Your task to perform on an android device: toggle data saver in the chrome app Image 0: 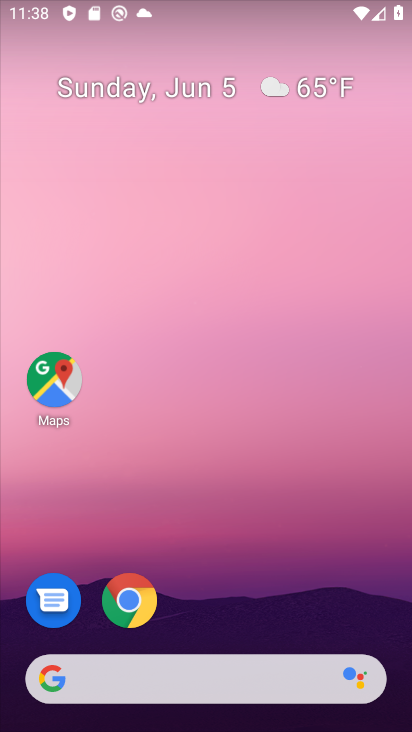
Step 0: click (138, 600)
Your task to perform on an android device: toggle data saver in the chrome app Image 1: 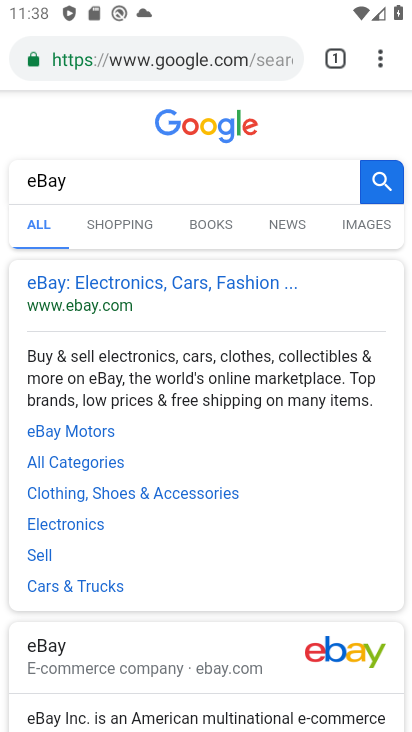
Step 1: click (376, 48)
Your task to perform on an android device: toggle data saver in the chrome app Image 2: 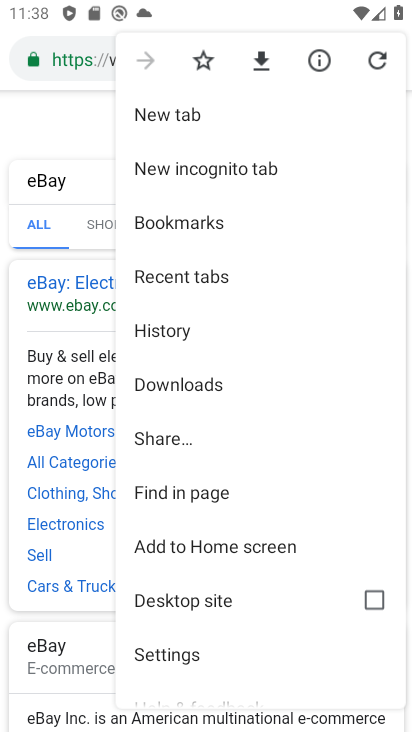
Step 2: click (157, 652)
Your task to perform on an android device: toggle data saver in the chrome app Image 3: 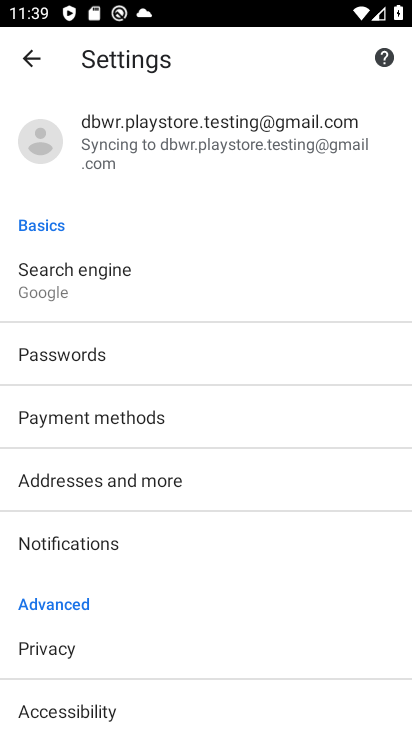
Step 3: drag from (150, 696) to (150, 300)
Your task to perform on an android device: toggle data saver in the chrome app Image 4: 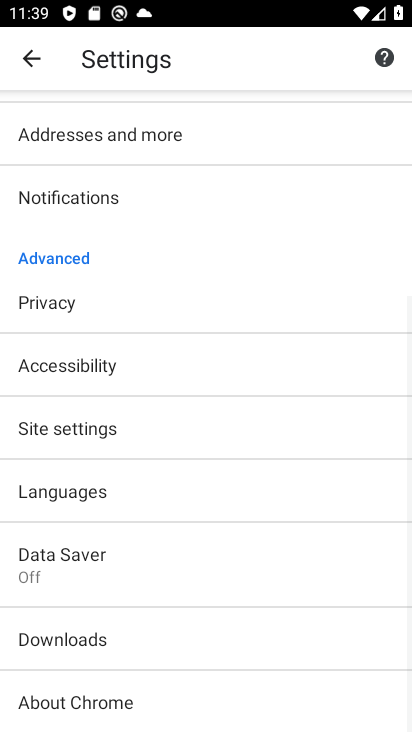
Step 4: click (88, 551)
Your task to perform on an android device: toggle data saver in the chrome app Image 5: 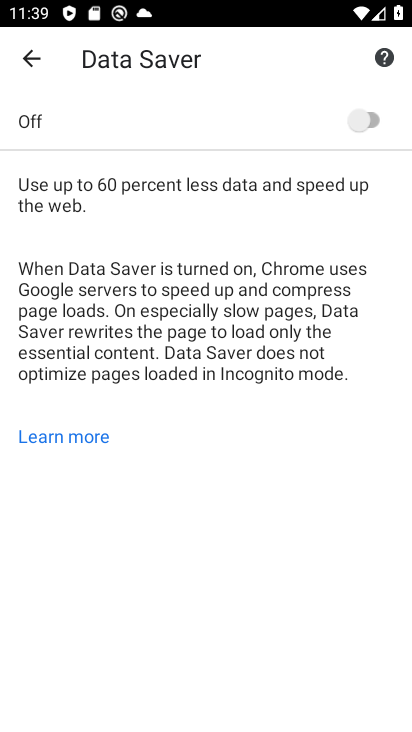
Step 5: click (366, 118)
Your task to perform on an android device: toggle data saver in the chrome app Image 6: 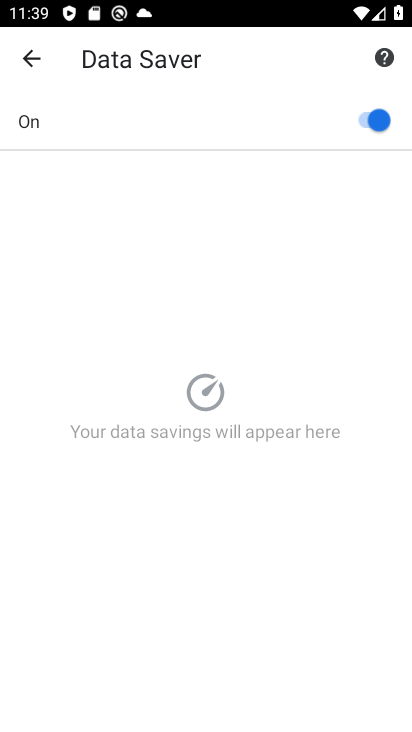
Step 6: task complete